Your task to perform on an android device: Go to settings Image 0: 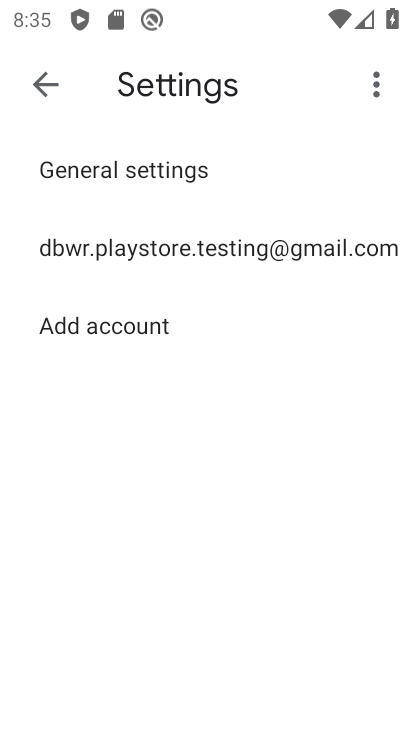
Step 0: press home button
Your task to perform on an android device: Go to settings Image 1: 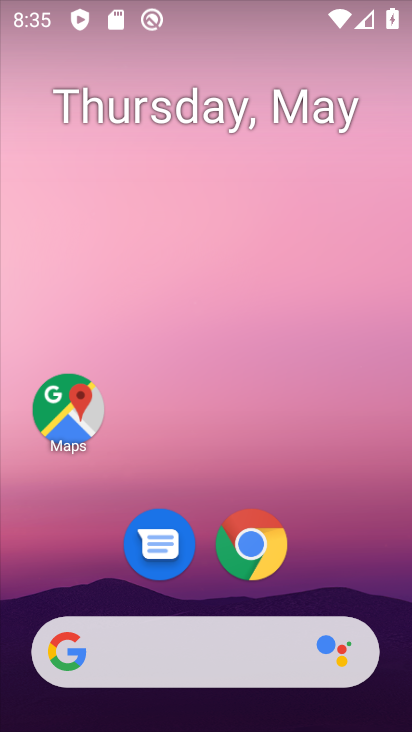
Step 1: drag from (332, 571) to (345, 54)
Your task to perform on an android device: Go to settings Image 2: 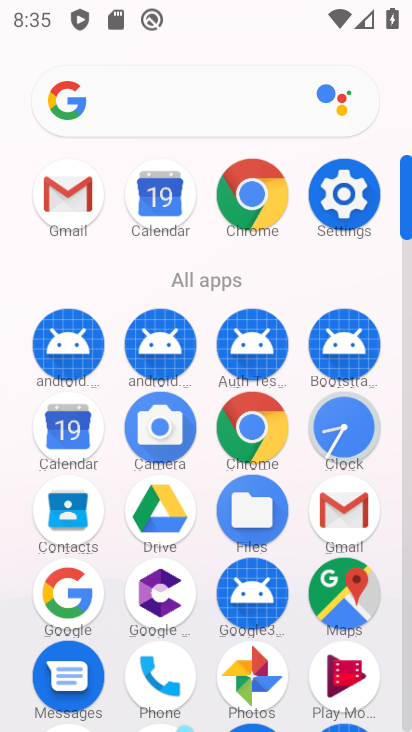
Step 2: click (329, 200)
Your task to perform on an android device: Go to settings Image 3: 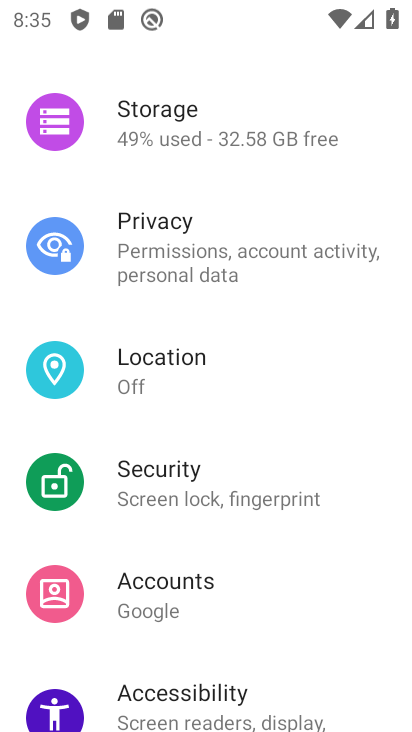
Step 3: task complete